Your task to perform on an android device: Do I have any events today? Image 0: 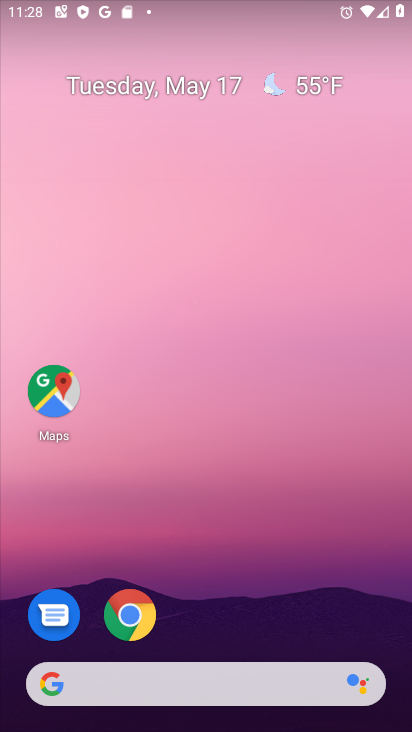
Step 0: click (71, 396)
Your task to perform on an android device: Do I have any events today? Image 1: 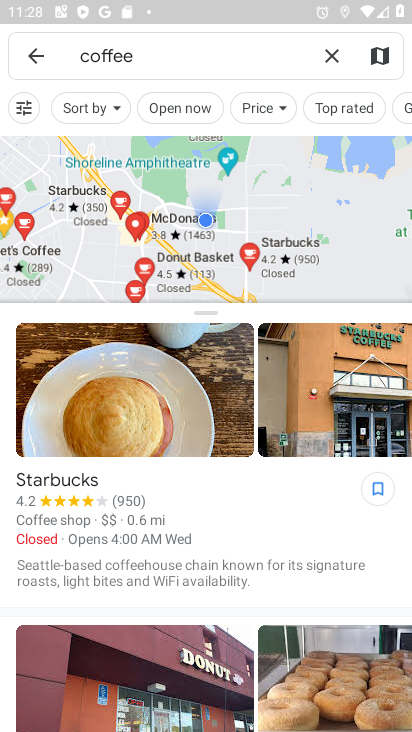
Step 1: press home button
Your task to perform on an android device: Do I have any events today? Image 2: 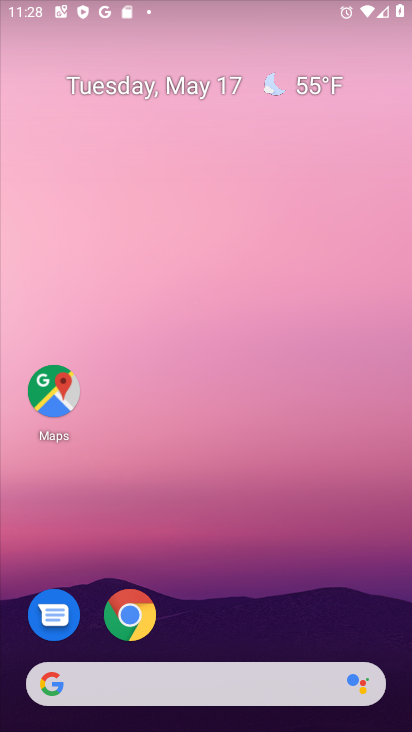
Step 2: click (294, 82)
Your task to perform on an android device: Do I have any events today? Image 3: 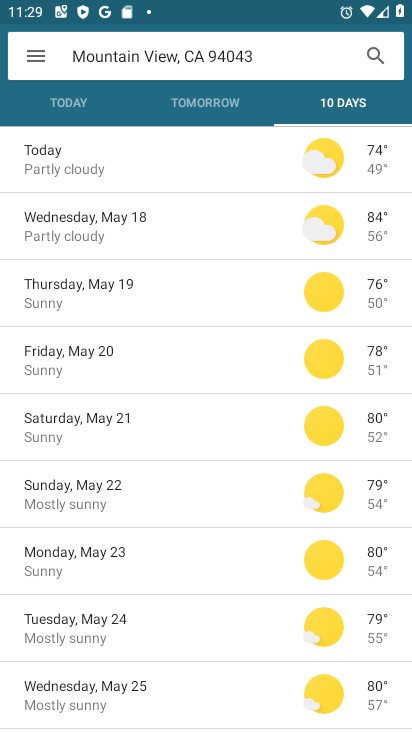
Step 3: click (78, 94)
Your task to perform on an android device: Do I have any events today? Image 4: 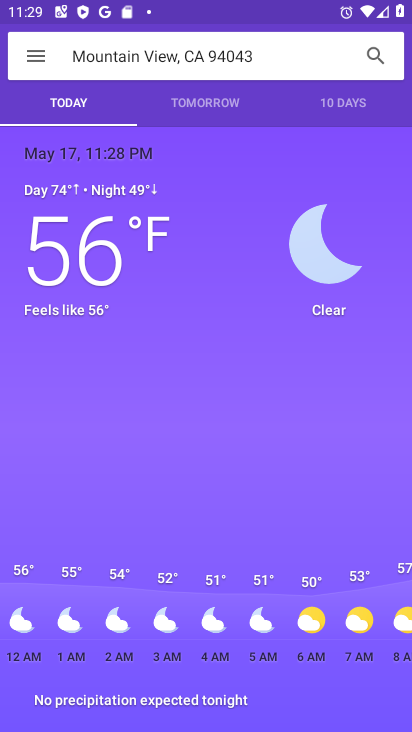
Step 4: task complete